Your task to perform on an android device: Open Maps and search for coffee Image 0: 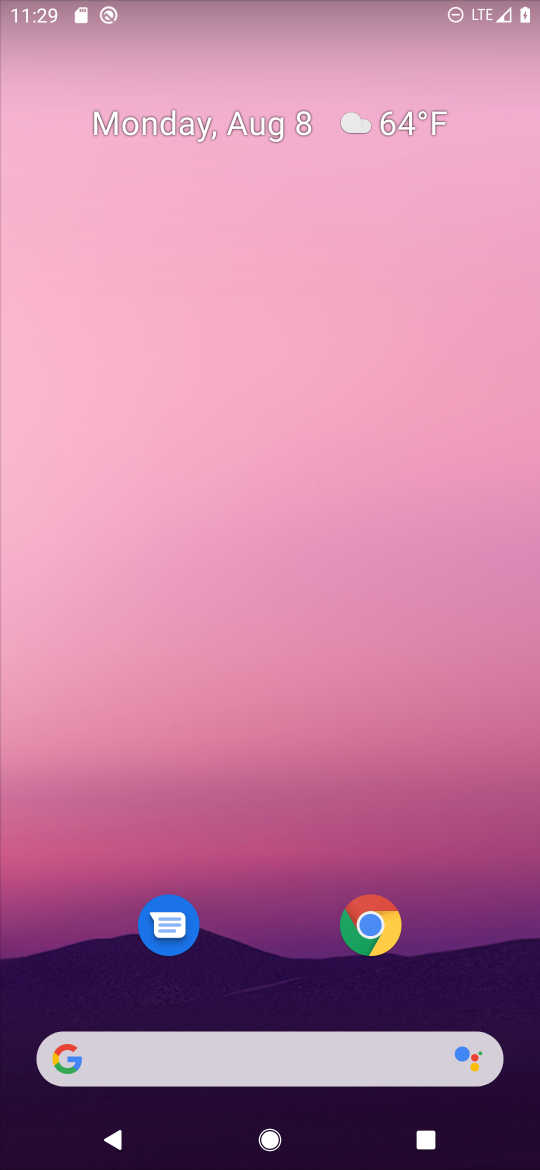
Step 0: drag from (243, 930) to (309, 230)
Your task to perform on an android device: Open Maps and search for coffee Image 1: 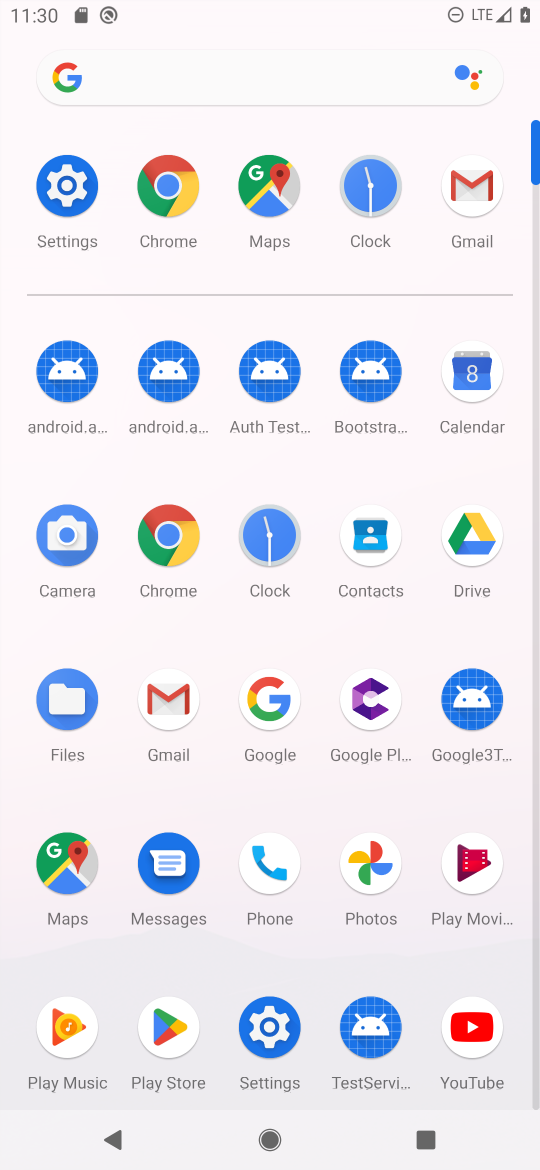
Step 1: click (66, 862)
Your task to perform on an android device: Open Maps and search for coffee Image 2: 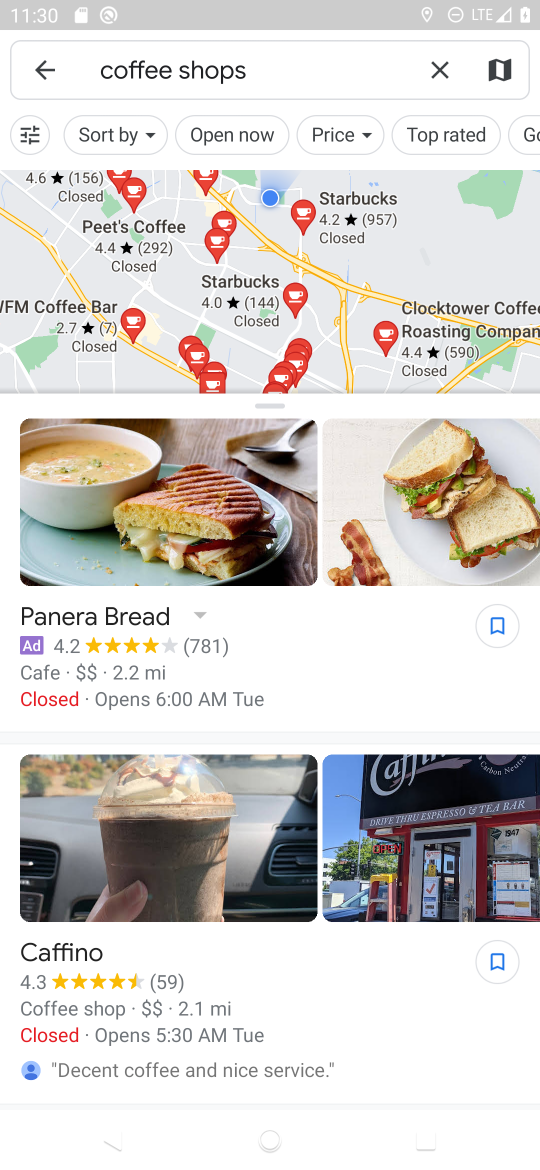
Step 2: click (442, 72)
Your task to perform on an android device: Open Maps and search for coffee Image 3: 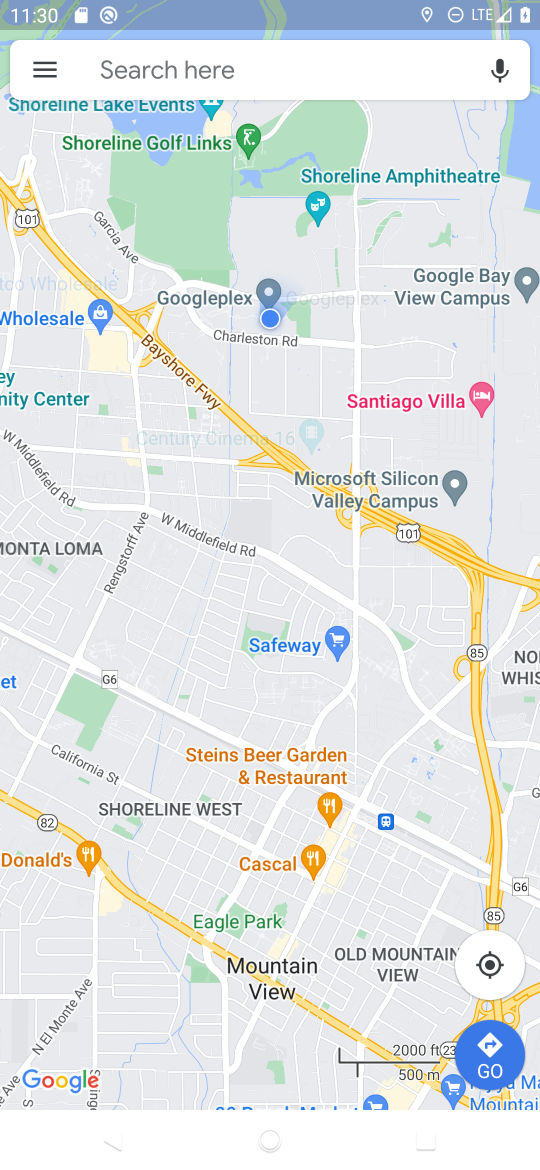
Step 3: click (297, 82)
Your task to perform on an android device: Open Maps and search for coffee Image 4: 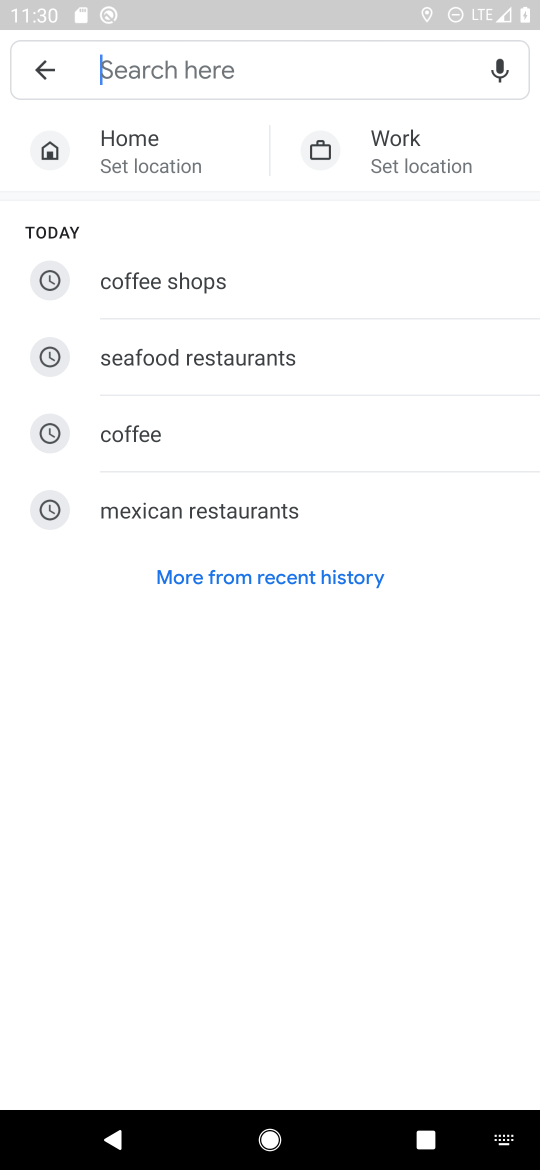
Step 4: type "coffee"
Your task to perform on an android device: Open Maps and search for coffee Image 5: 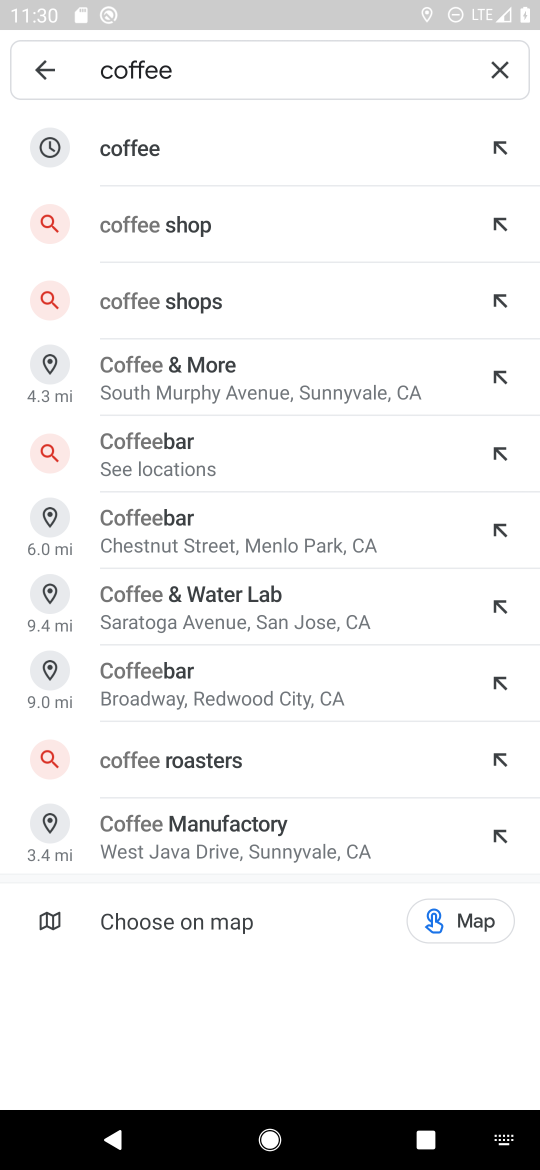
Step 5: click (137, 148)
Your task to perform on an android device: Open Maps and search for coffee Image 6: 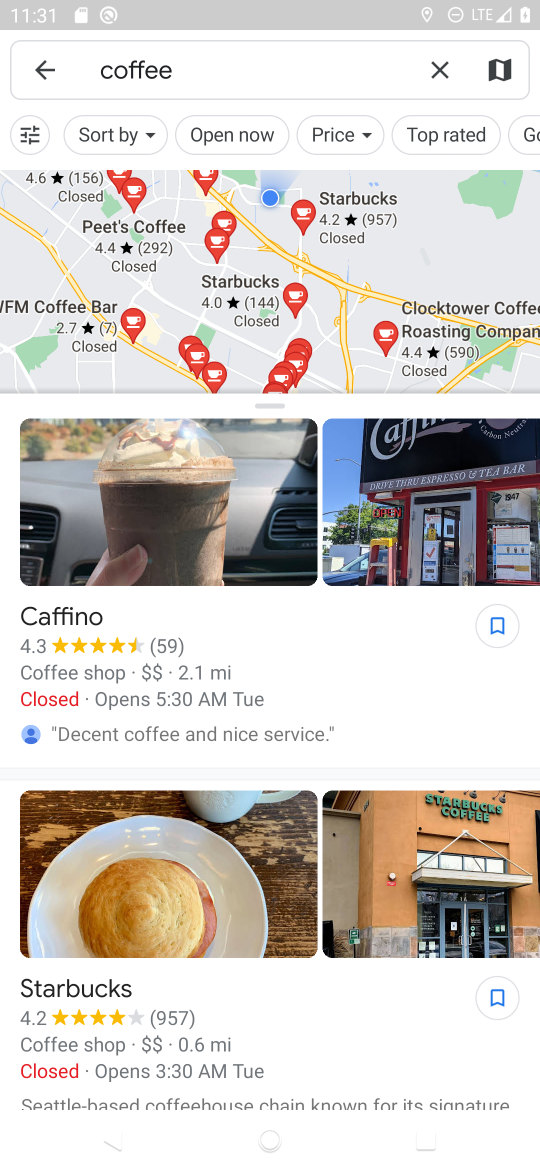
Step 6: task complete